Your task to perform on an android device: Do I have any events tomorrow? Image 0: 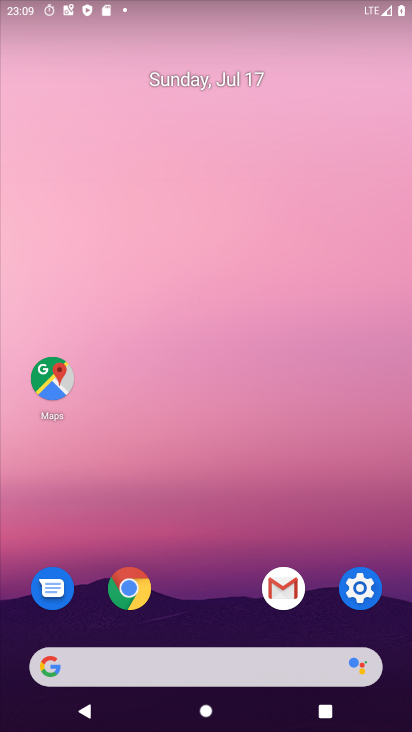
Step 0: press home button
Your task to perform on an android device: Do I have any events tomorrow? Image 1: 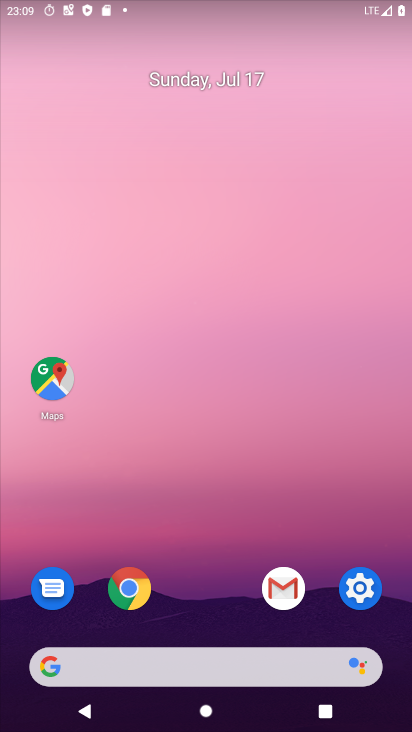
Step 1: click (184, 672)
Your task to perform on an android device: Do I have any events tomorrow? Image 2: 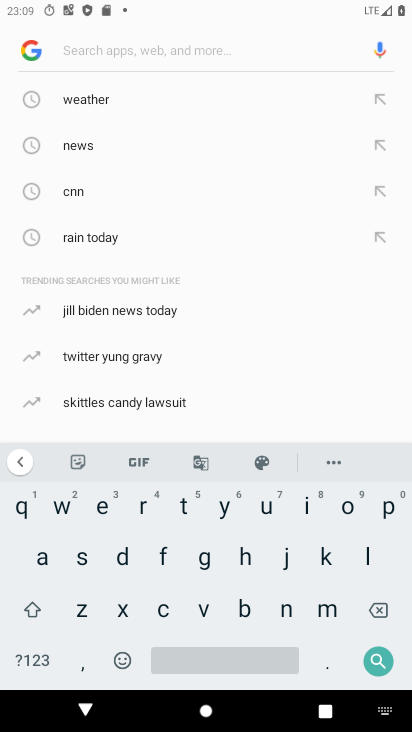
Step 2: press home button
Your task to perform on an android device: Do I have any events tomorrow? Image 3: 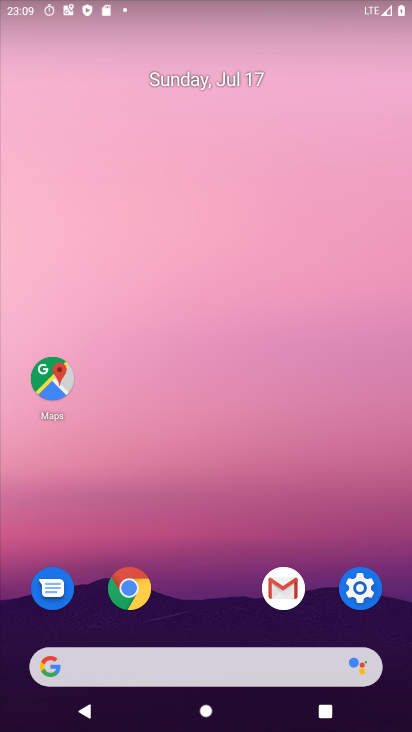
Step 3: drag from (291, 661) to (235, 318)
Your task to perform on an android device: Do I have any events tomorrow? Image 4: 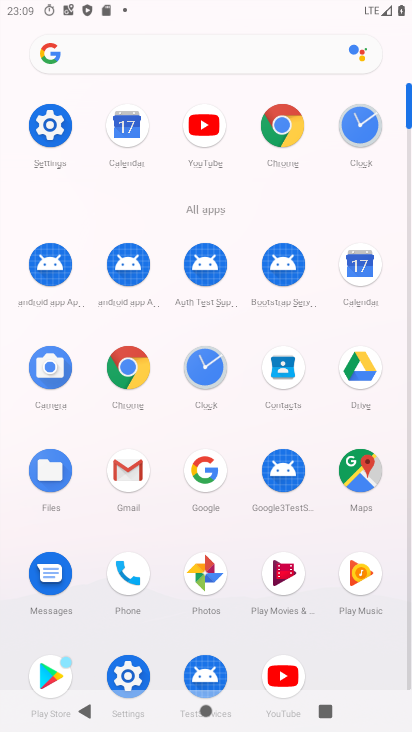
Step 4: click (351, 267)
Your task to perform on an android device: Do I have any events tomorrow? Image 5: 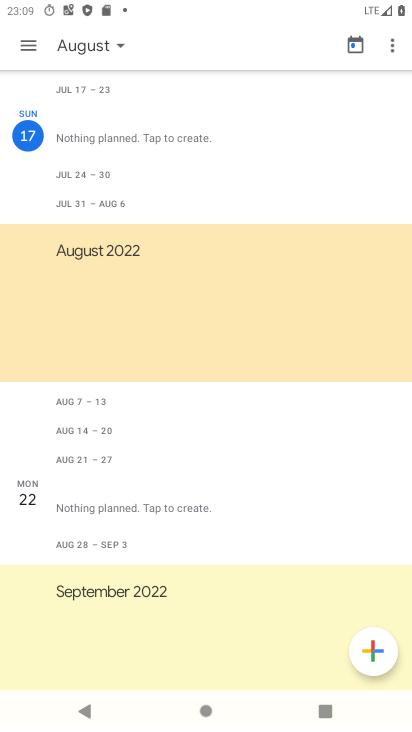
Step 5: click (22, 36)
Your task to perform on an android device: Do I have any events tomorrow? Image 6: 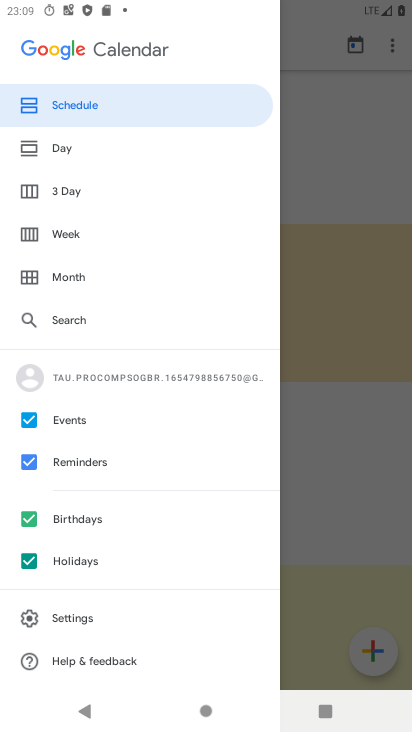
Step 6: click (85, 284)
Your task to perform on an android device: Do I have any events tomorrow? Image 7: 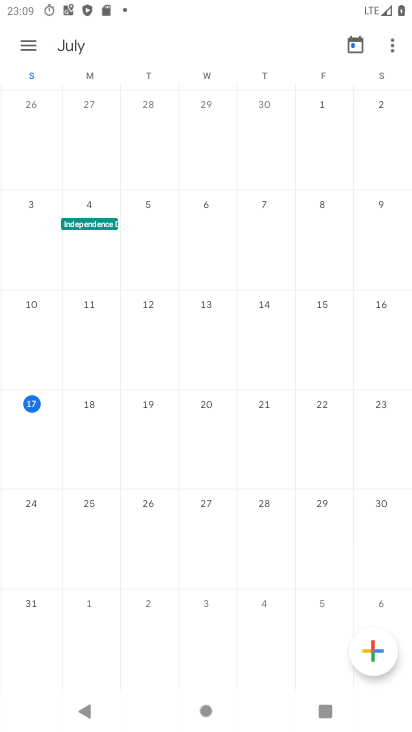
Step 7: click (88, 407)
Your task to perform on an android device: Do I have any events tomorrow? Image 8: 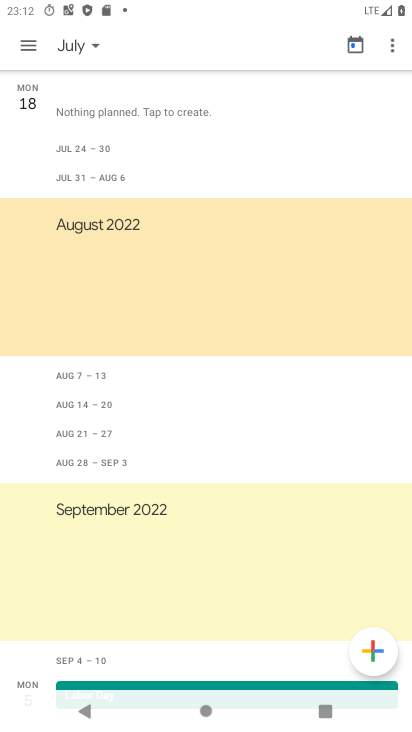
Step 8: task complete